Your task to perform on an android device: check data usage Image 0: 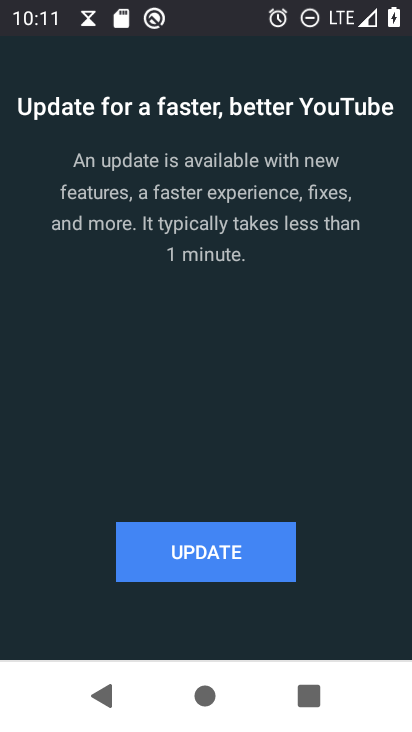
Step 0: press home button
Your task to perform on an android device: check data usage Image 1: 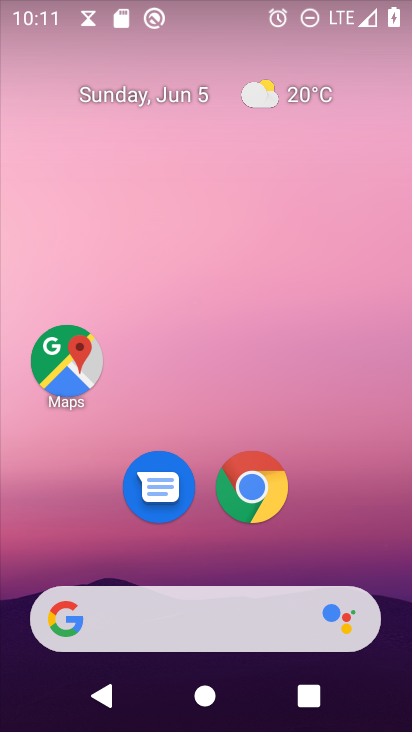
Step 1: drag from (304, 551) to (340, 114)
Your task to perform on an android device: check data usage Image 2: 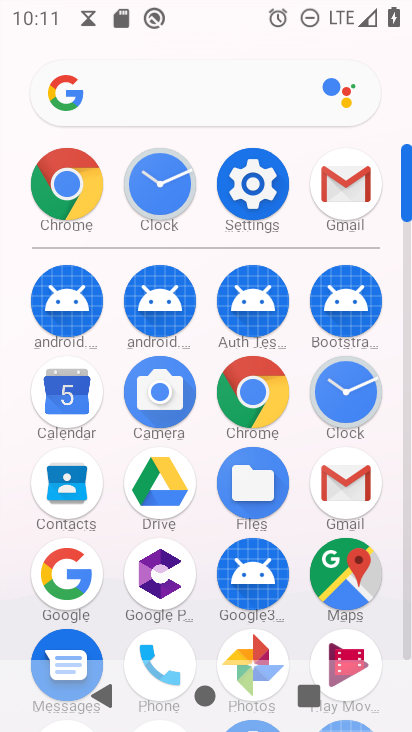
Step 2: click (252, 176)
Your task to perform on an android device: check data usage Image 3: 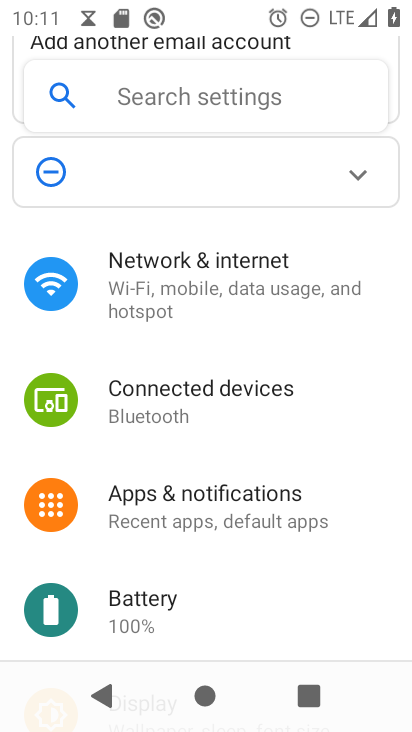
Step 3: click (194, 265)
Your task to perform on an android device: check data usage Image 4: 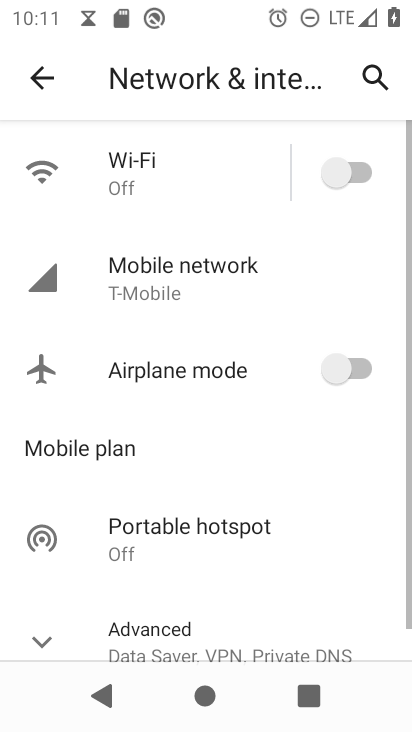
Step 4: click (136, 281)
Your task to perform on an android device: check data usage Image 5: 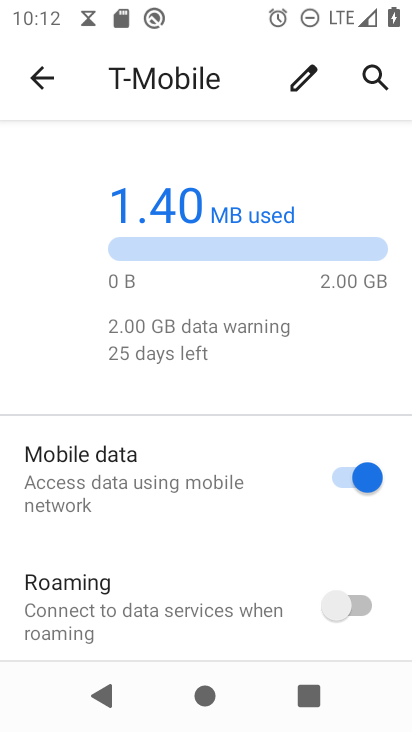
Step 5: task complete